Your task to perform on an android device: Is it going to rain this weekend? Image 0: 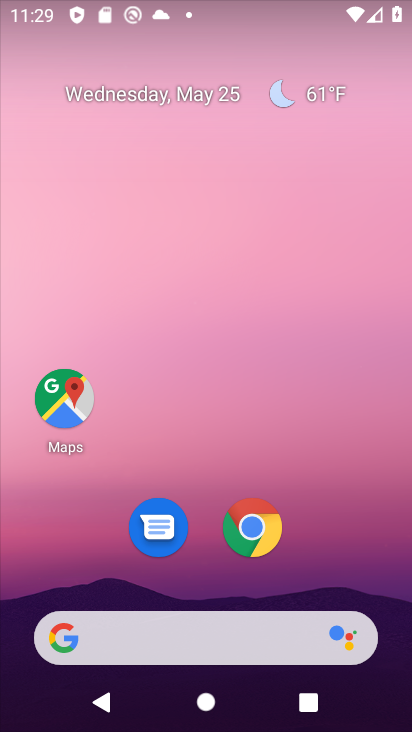
Step 0: drag from (283, 705) to (186, 264)
Your task to perform on an android device: Is it going to rain this weekend? Image 1: 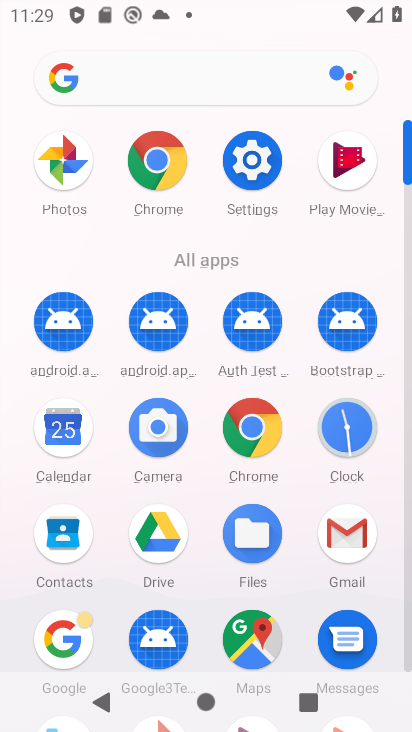
Step 1: press back button
Your task to perform on an android device: Is it going to rain this weekend? Image 2: 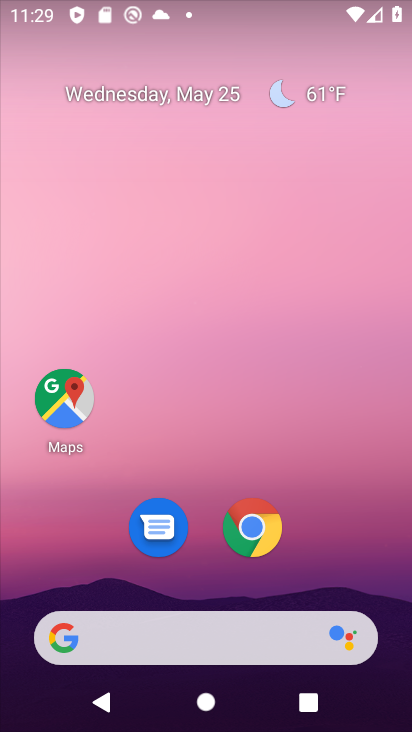
Step 2: drag from (8, 237) to (391, 465)
Your task to perform on an android device: Is it going to rain this weekend? Image 3: 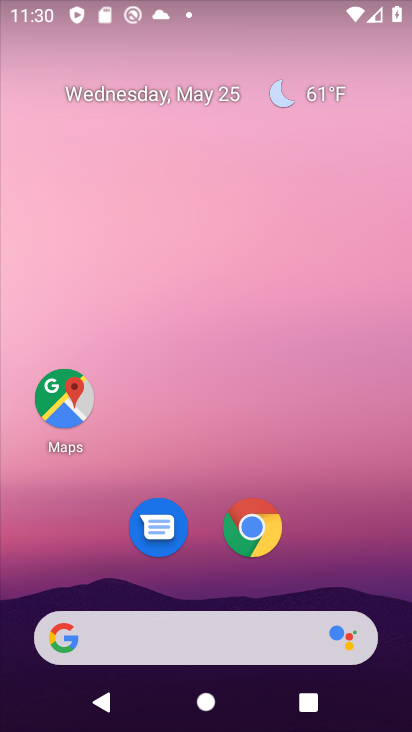
Step 3: drag from (77, 291) to (393, 484)
Your task to perform on an android device: Is it going to rain this weekend? Image 4: 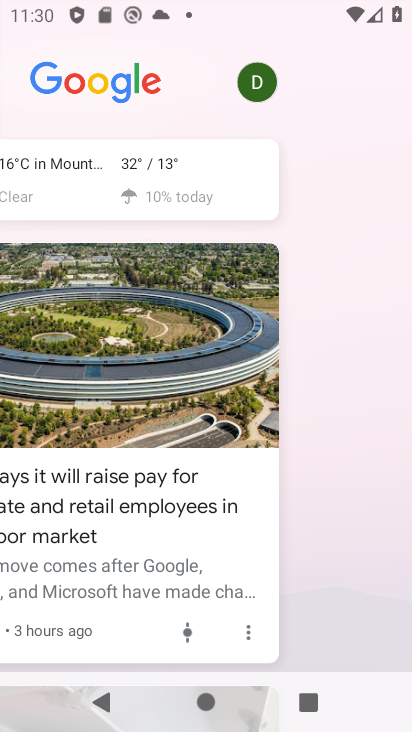
Step 4: drag from (19, 240) to (383, 441)
Your task to perform on an android device: Is it going to rain this weekend? Image 5: 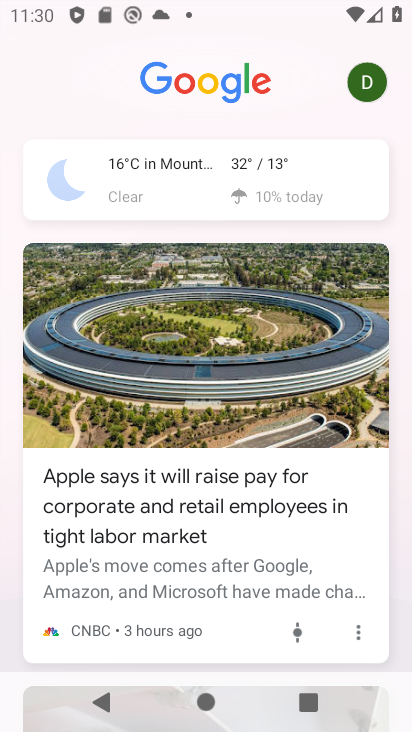
Step 5: click (150, 169)
Your task to perform on an android device: Is it going to rain this weekend? Image 6: 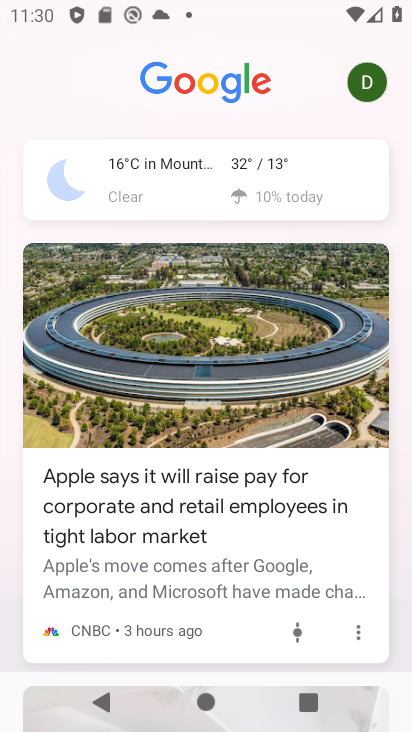
Step 6: click (153, 170)
Your task to perform on an android device: Is it going to rain this weekend? Image 7: 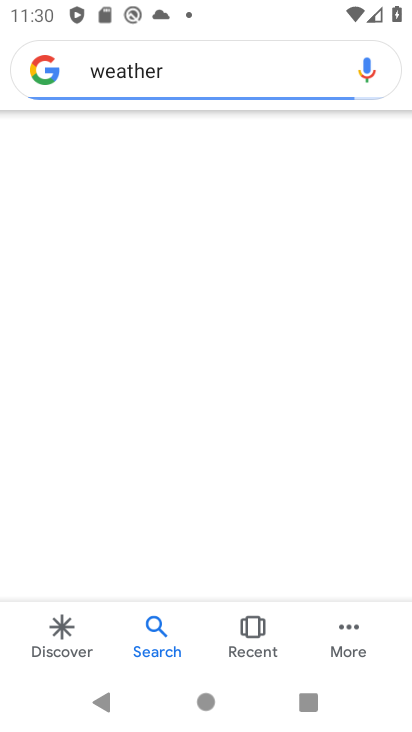
Step 7: click (194, 187)
Your task to perform on an android device: Is it going to rain this weekend? Image 8: 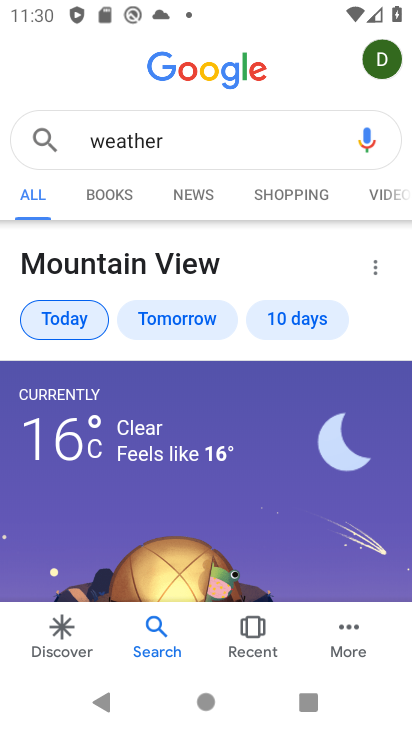
Step 8: click (139, 325)
Your task to perform on an android device: Is it going to rain this weekend? Image 9: 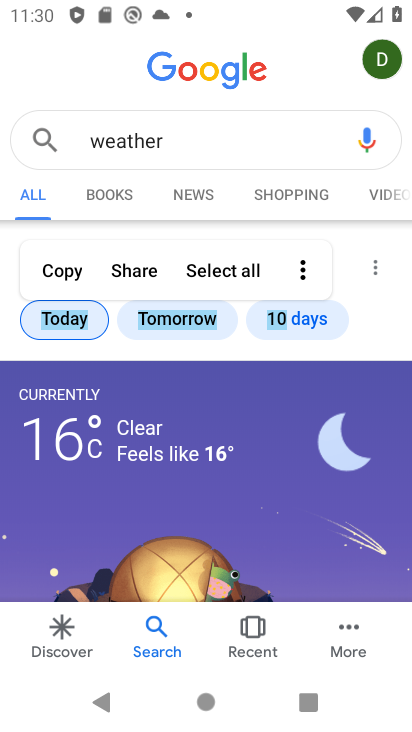
Step 9: click (152, 319)
Your task to perform on an android device: Is it going to rain this weekend? Image 10: 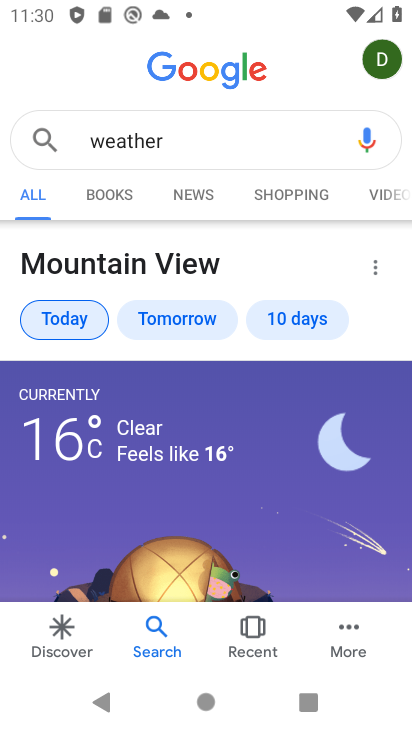
Step 10: drag from (191, 499) to (159, 244)
Your task to perform on an android device: Is it going to rain this weekend? Image 11: 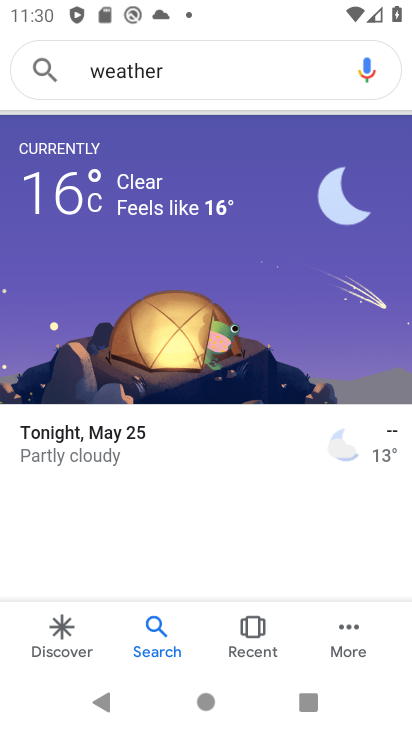
Step 11: drag from (198, 421) to (216, 277)
Your task to perform on an android device: Is it going to rain this weekend? Image 12: 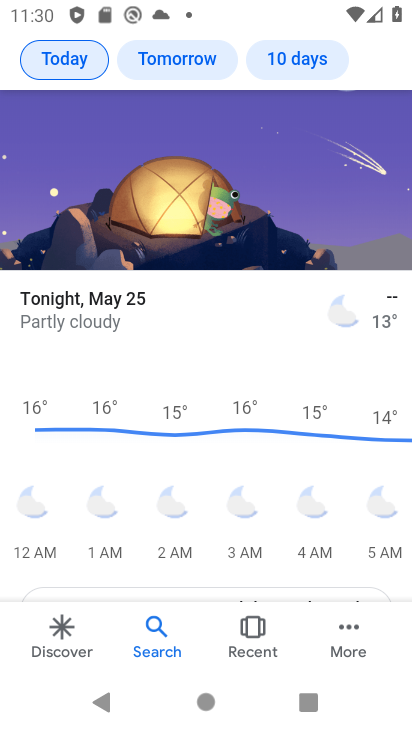
Step 12: click (233, 136)
Your task to perform on an android device: Is it going to rain this weekend? Image 13: 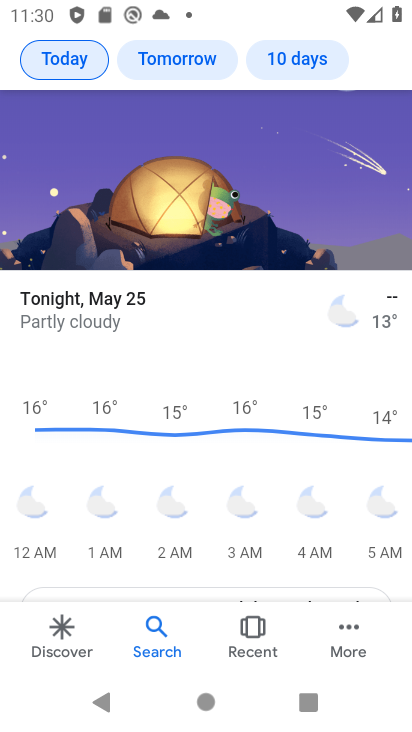
Step 13: click (241, 158)
Your task to perform on an android device: Is it going to rain this weekend? Image 14: 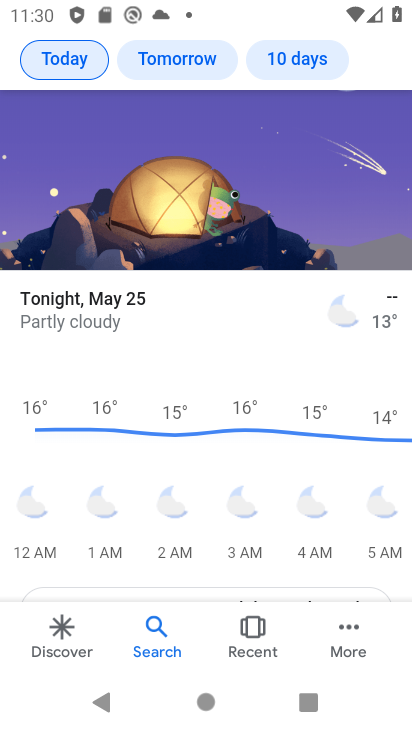
Step 14: drag from (209, 440) to (180, 228)
Your task to perform on an android device: Is it going to rain this weekend? Image 15: 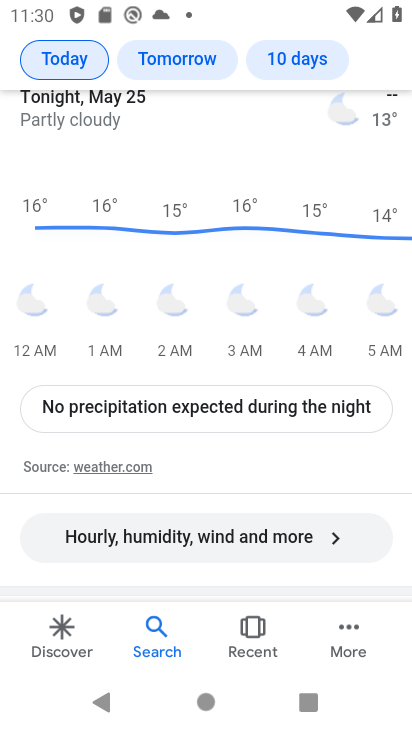
Step 15: click (155, 162)
Your task to perform on an android device: Is it going to rain this weekend? Image 16: 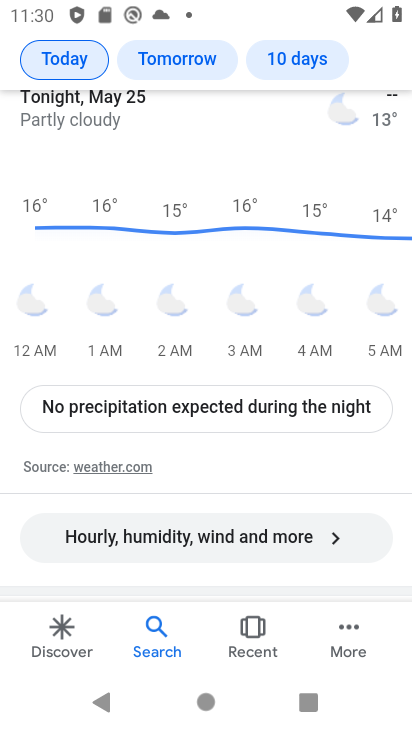
Step 16: task complete